Your task to perform on an android device: check out phone information Image 0: 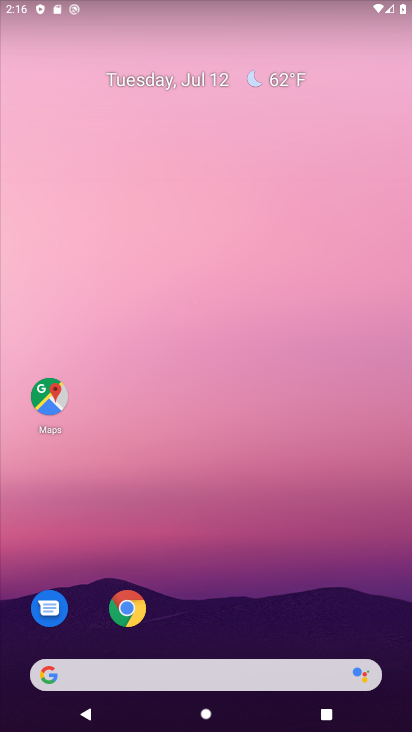
Step 0: drag from (141, 676) to (386, 84)
Your task to perform on an android device: check out phone information Image 1: 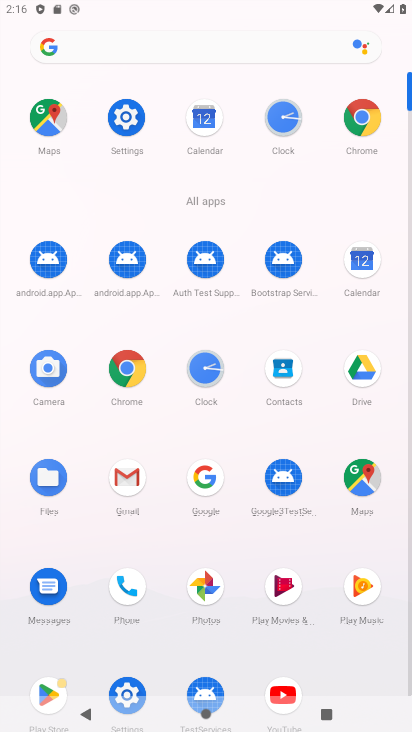
Step 1: click (126, 682)
Your task to perform on an android device: check out phone information Image 2: 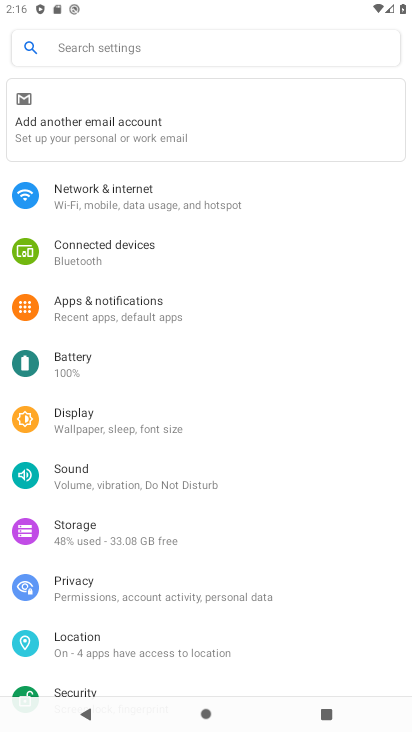
Step 2: drag from (120, 656) to (313, 295)
Your task to perform on an android device: check out phone information Image 3: 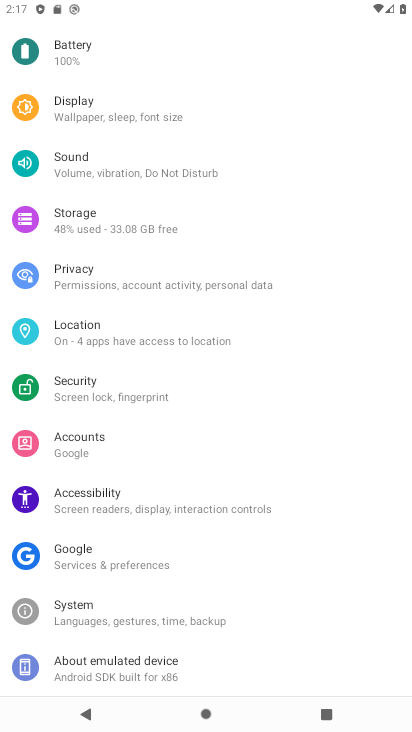
Step 3: drag from (196, 644) to (388, 146)
Your task to perform on an android device: check out phone information Image 4: 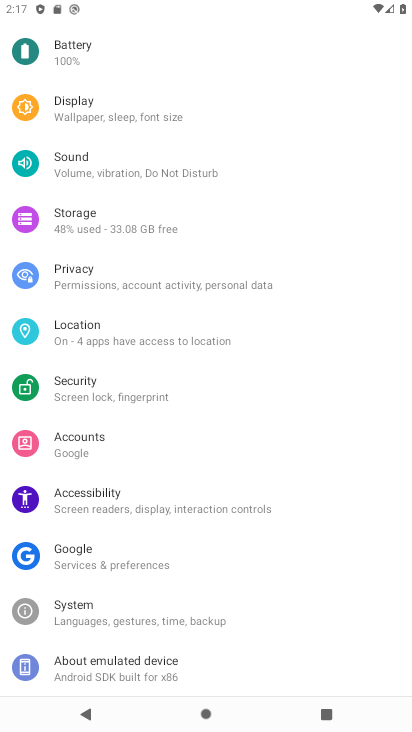
Step 4: drag from (203, 619) to (410, 109)
Your task to perform on an android device: check out phone information Image 5: 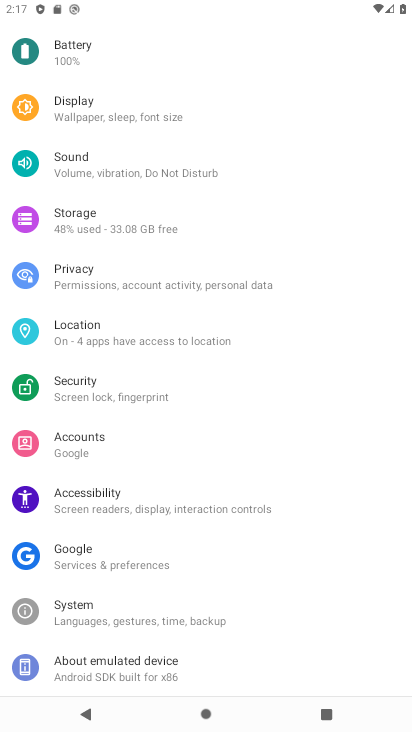
Step 5: click (162, 657)
Your task to perform on an android device: check out phone information Image 6: 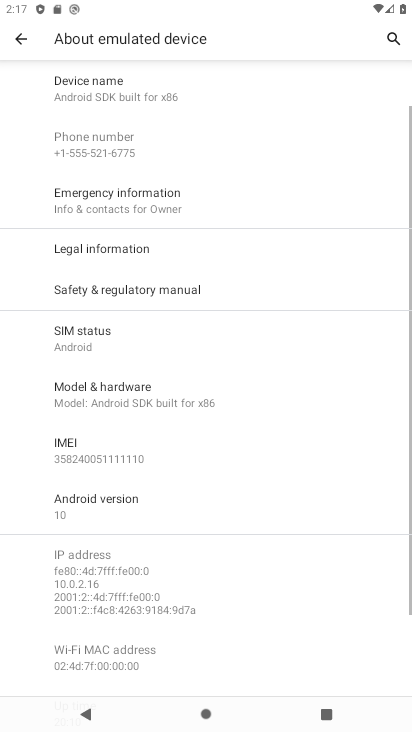
Step 6: task complete